Your task to perform on an android device: Open sound settings Image 0: 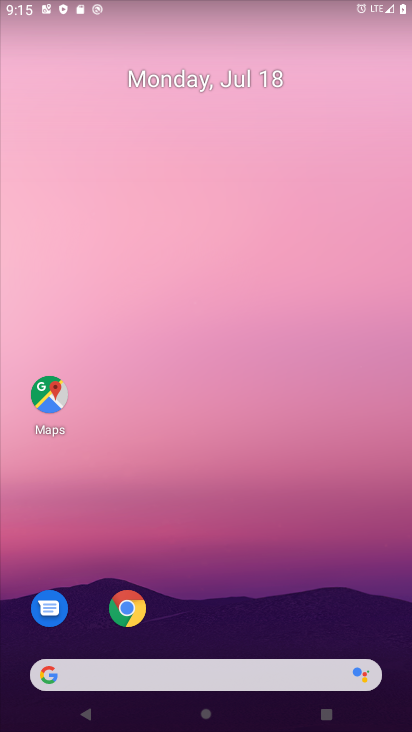
Step 0: drag from (225, 718) to (229, 151)
Your task to perform on an android device: Open sound settings Image 1: 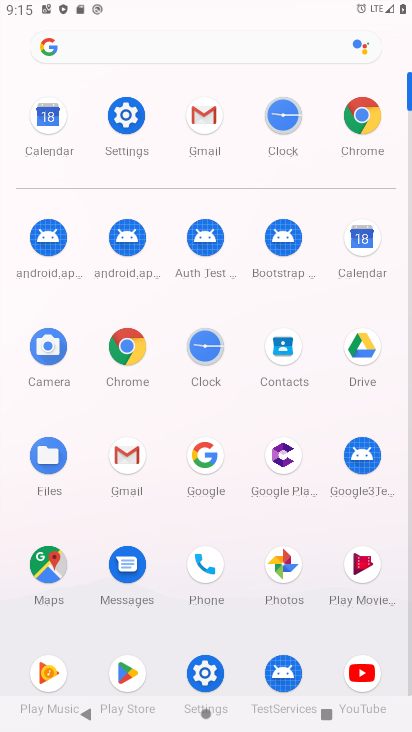
Step 1: click (124, 109)
Your task to perform on an android device: Open sound settings Image 2: 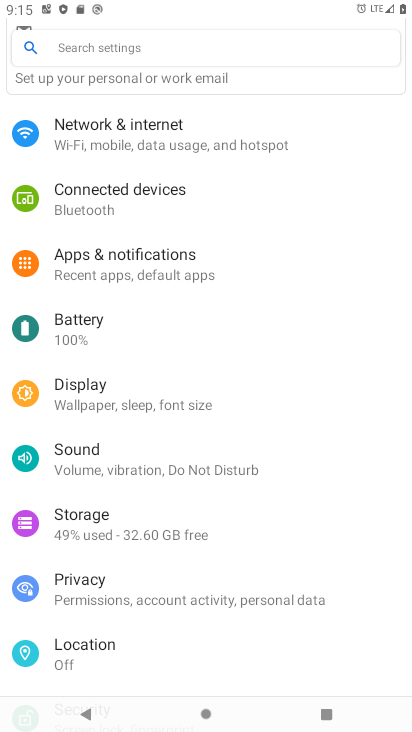
Step 2: click (83, 458)
Your task to perform on an android device: Open sound settings Image 3: 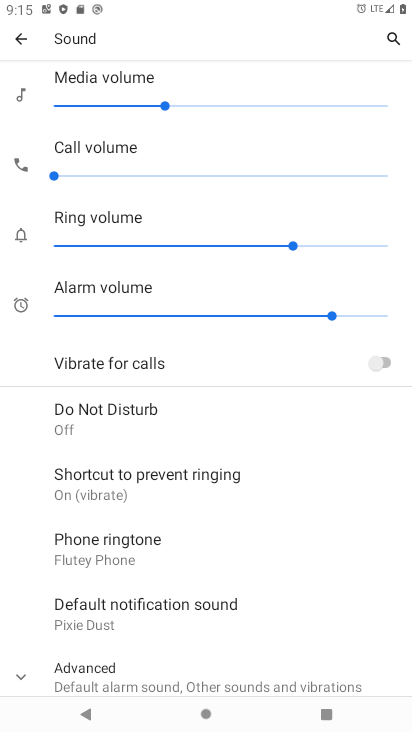
Step 3: task complete